Your task to perform on an android device: Open Maps and search for coffee Image 0: 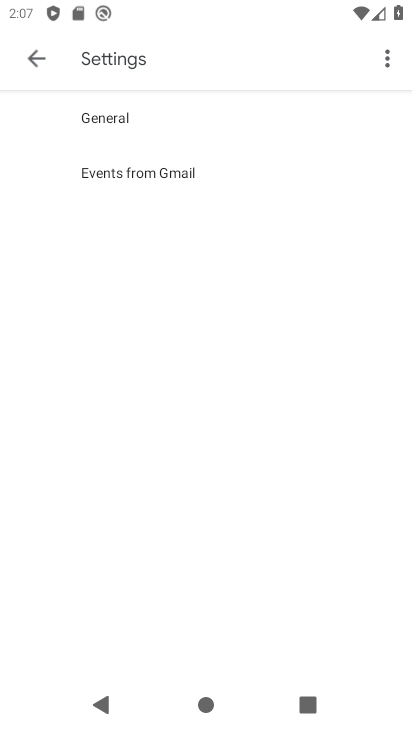
Step 0: press home button
Your task to perform on an android device: Open Maps and search for coffee Image 1: 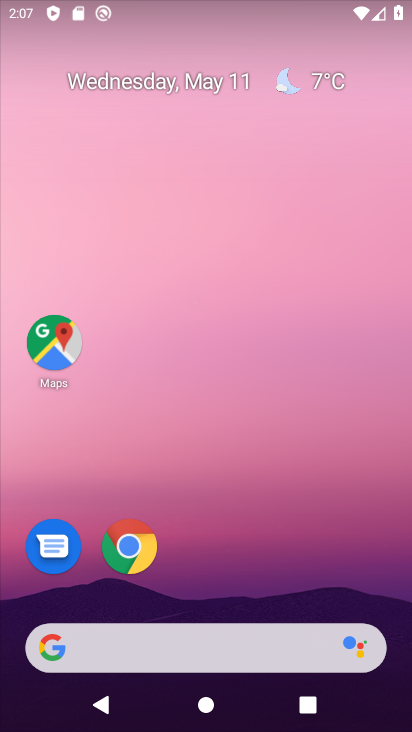
Step 1: click (40, 340)
Your task to perform on an android device: Open Maps and search for coffee Image 2: 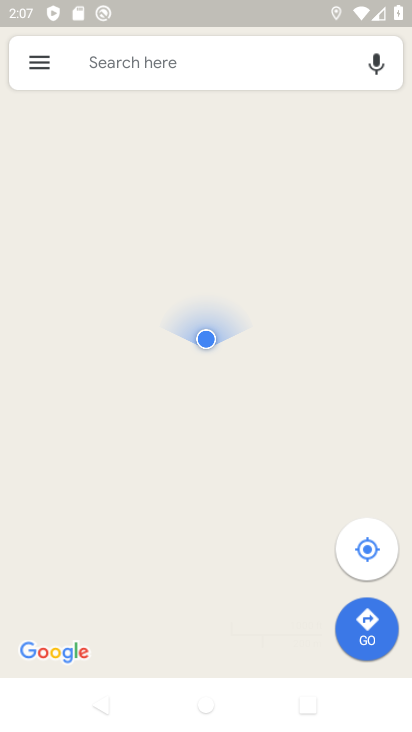
Step 2: click (129, 73)
Your task to perform on an android device: Open Maps and search for coffee Image 3: 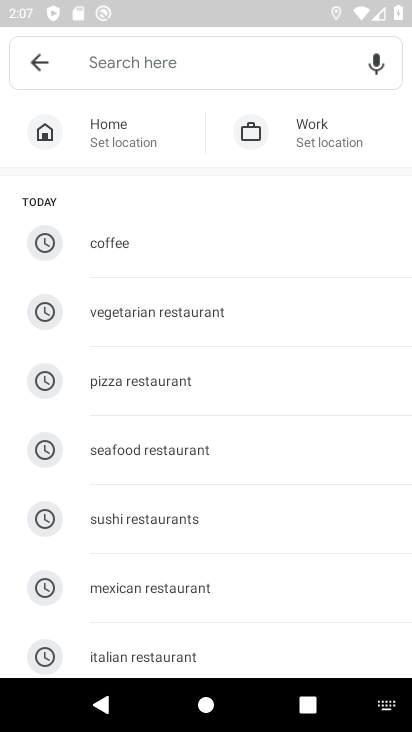
Step 3: type "coffee shops"
Your task to perform on an android device: Open Maps and search for coffee Image 4: 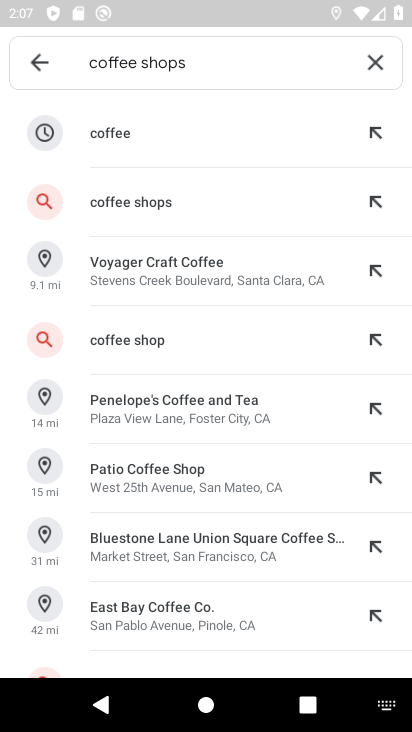
Step 4: click (181, 209)
Your task to perform on an android device: Open Maps and search for coffee Image 5: 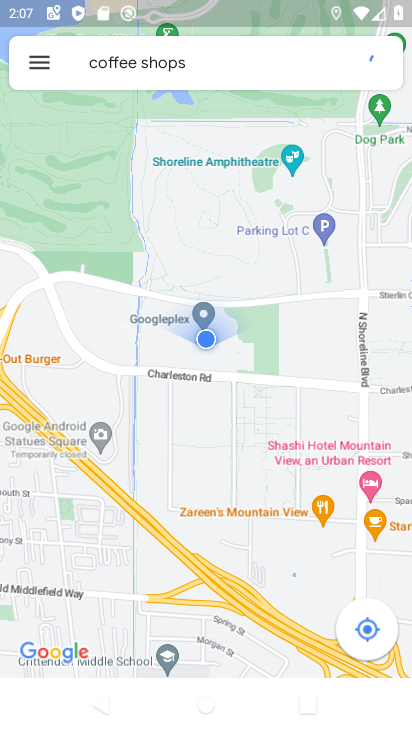
Step 5: task complete